Your task to perform on an android device: turn off notifications settings in the gmail app Image 0: 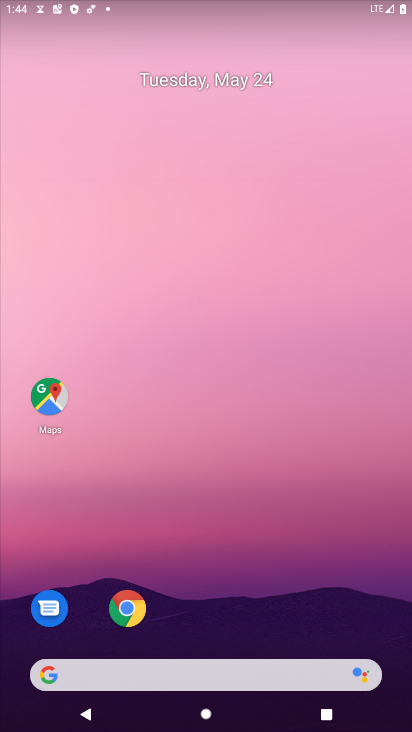
Step 0: drag from (242, 630) to (246, 75)
Your task to perform on an android device: turn off notifications settings in the gmail app Image 1: 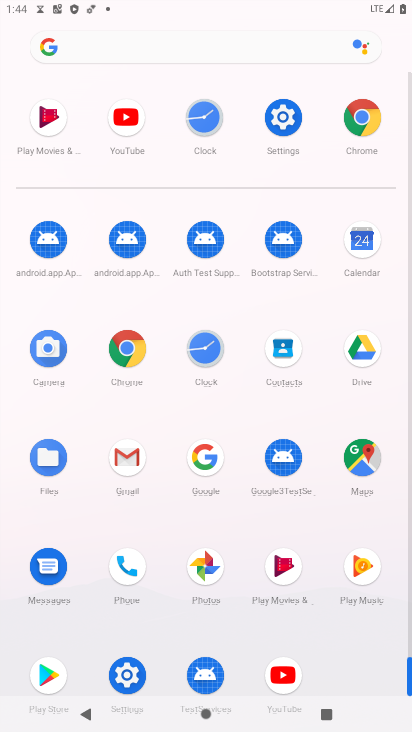
Step 1: click (123, 449)
Your task to perform on an android device: turn off notifications settings in the gmail app Image 2: 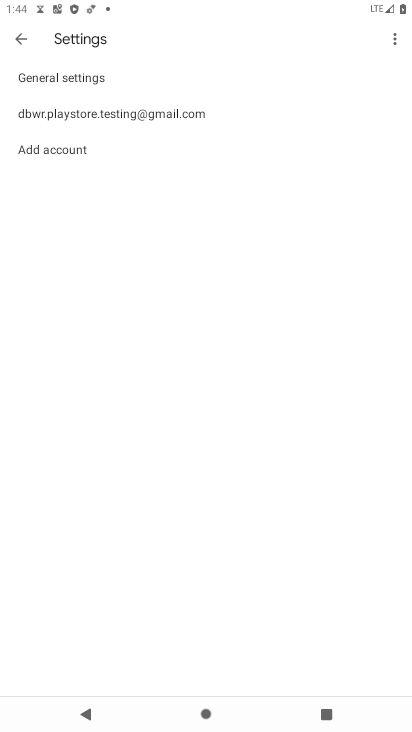
Step 2: click (140, 114)
Your task to perform on an android device: turn off notifications settings in the gmail app Image 3: 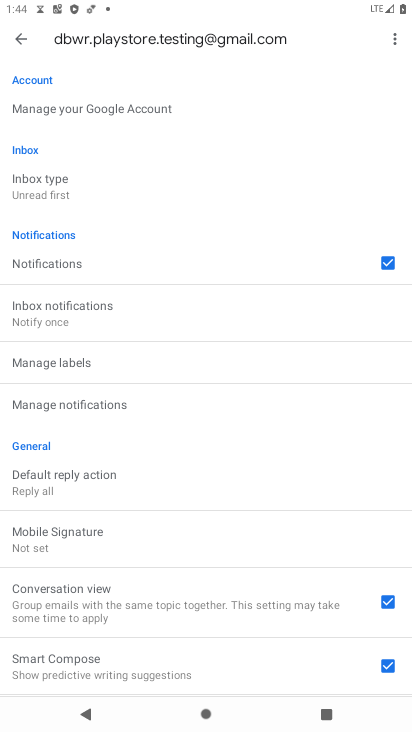
Step 3: click (122, 402)
Your task to perform on an android device: turn off notifications settings in the gmail app Image 4: 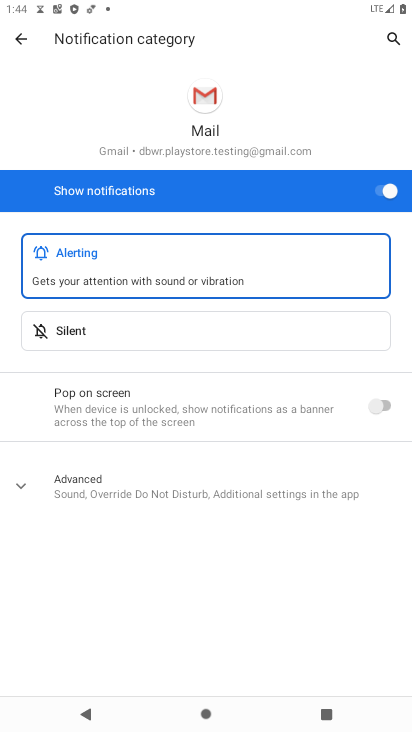
Step 4: click (377, 201)
Your task to perform on an android device: turn off notifications settings in the gmail app Image 5: 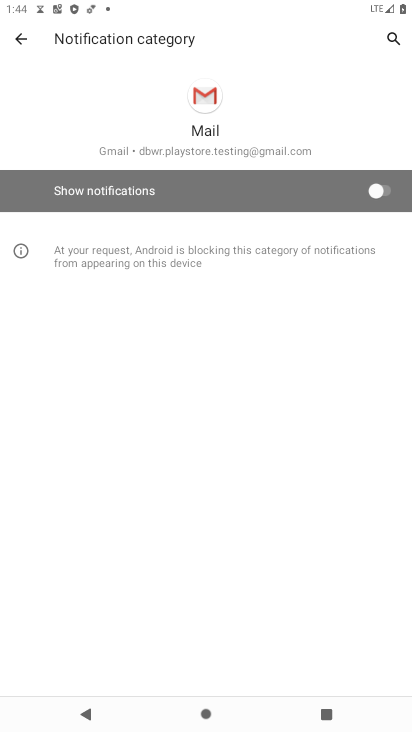
Step 5: task complete